Your task to perform on an android device: open chrome privacy settings Image 0: 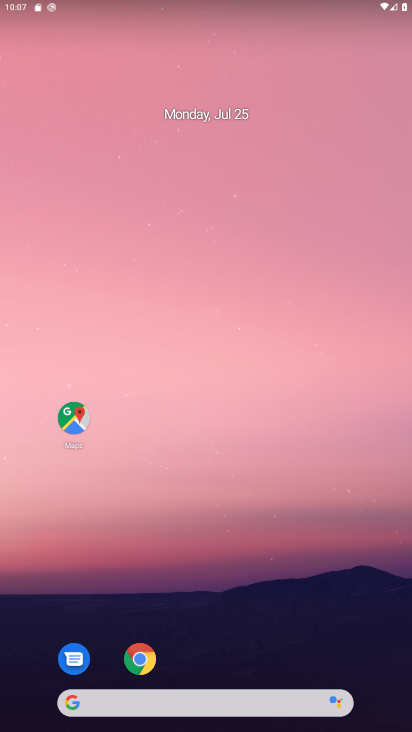
Step 0: drag from (246, 688) to (221, 83)
Your task to perform on an android device: open chrome privacy settings Image 1: 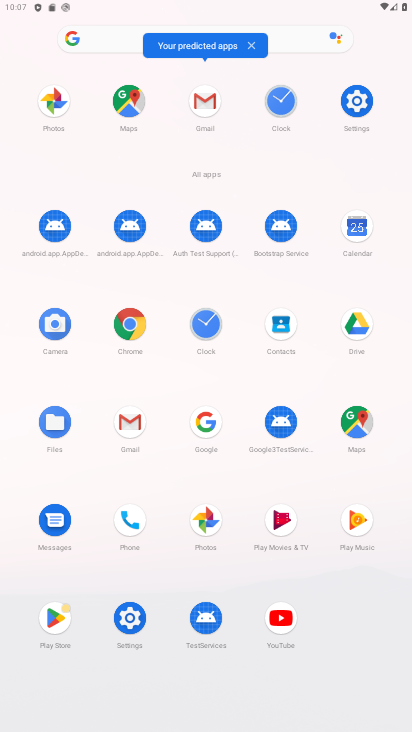
Step 1: click (146, 330)
Your task to perform on an android device: open chrome privacy settings Image 2: 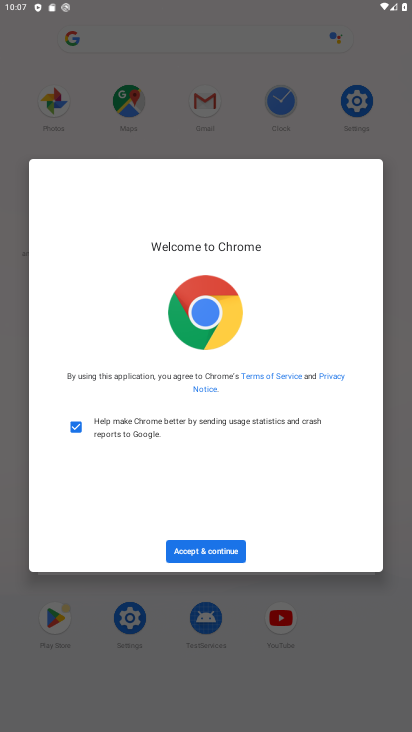
Step 2: click (216, 549)
Your task to perform on an android device: open chrome privacy settings Image 3: 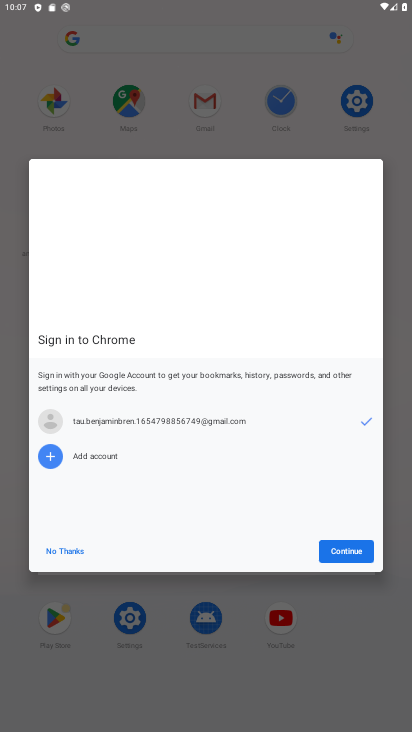
Step 3: click (337, 546)
Your task to perform on an android device: open chrome privacy settings Image 4: 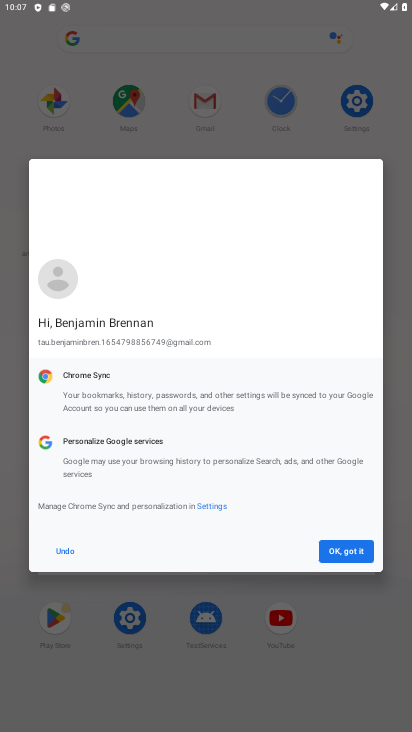
Step 4: click (358, 555)
Your task to perform on an android device: open chrome privacy settings Image 5: 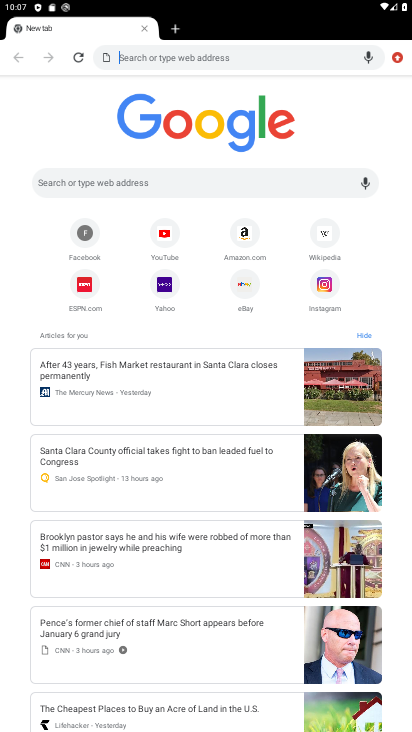
Step 5: drag from (395, 63) to (265, 299)
Your task to perform on an android device: open chrome privacy settings Image 6: 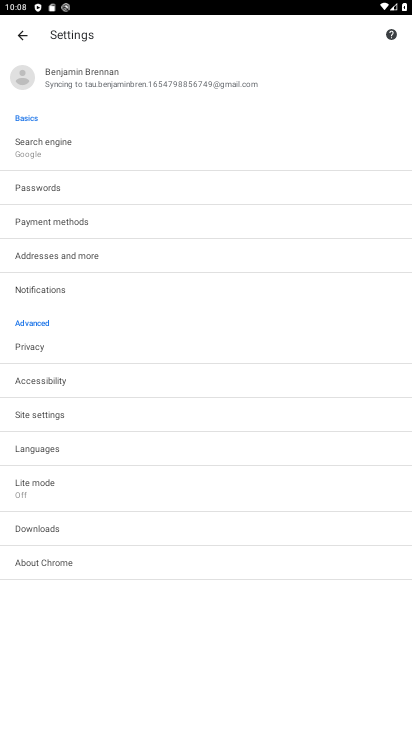
Step 6: click (34, 339)
Your task to perform on an android device: open chrome privacy settings Image 7: 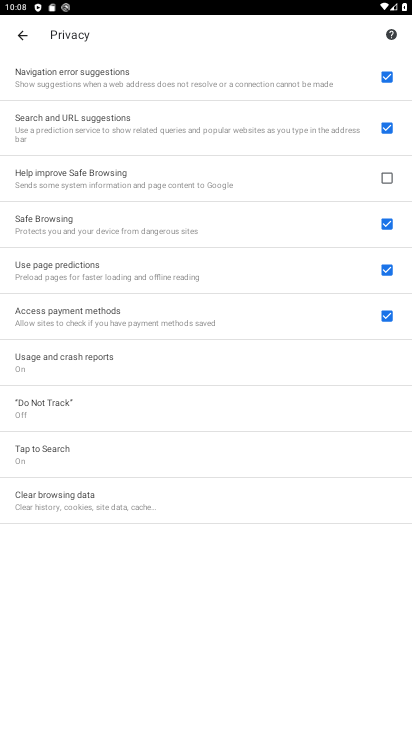
Step 7: task complete